Your task to perform on an android device: open chrome privacy settings Image 0: 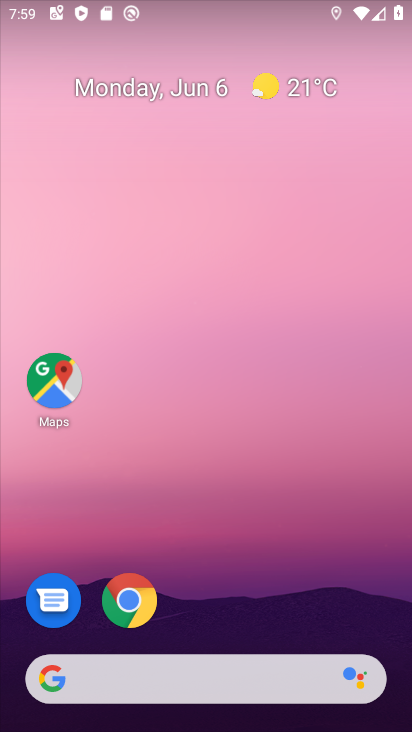
Step 0: click (130, 601)
Your task to perform on an android device: open chrome privacy settings Image 1: 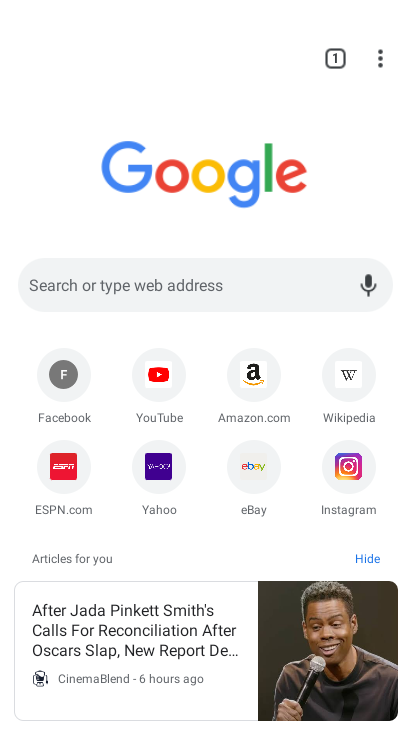
Step 1: click (380, 63)
Your task to perform on an android device: open chrome privacy settings Image 2: 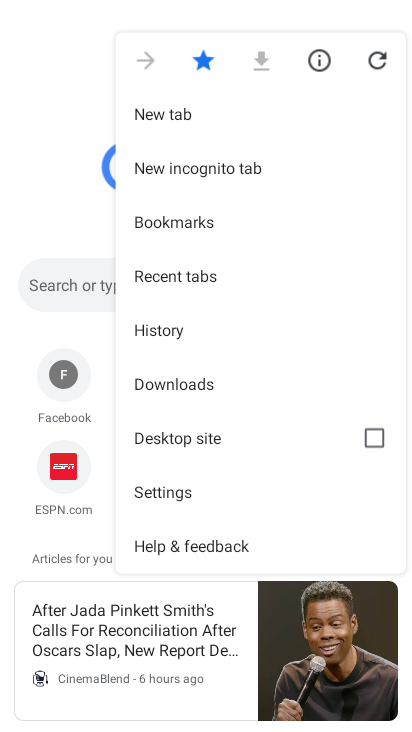
Step 2: click (183, 497)
Your task to perform on an android device: open chrome privacy settings Image 3: 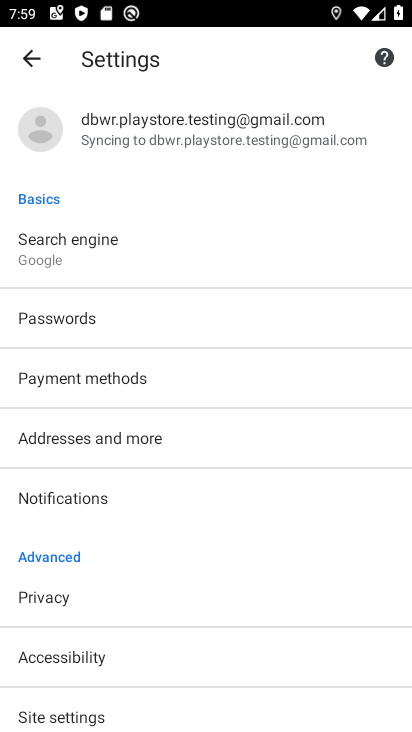
Step 3: click (57, 593)
Your task to perform on an android device: open chrome privacy settings Image 4: 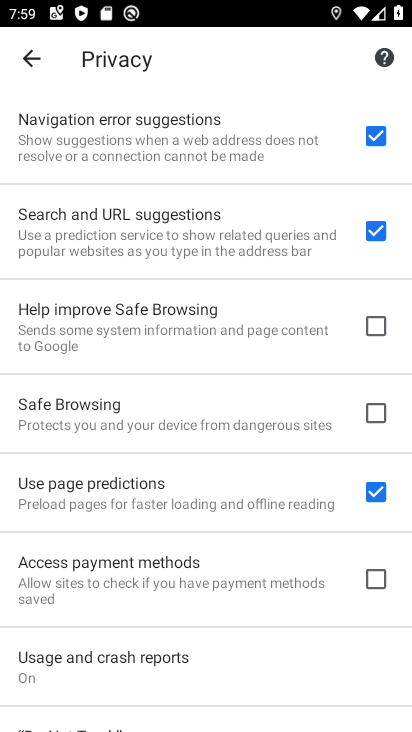
Step 4: task complete